Your task to perform on an android device: Open eBay Image 0: 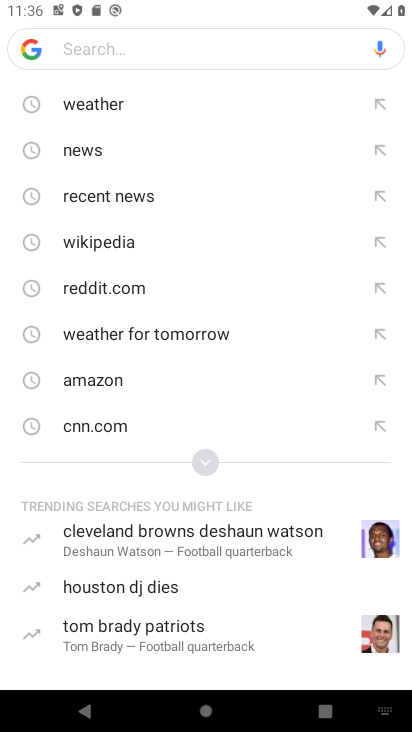
Step 0: press back button
Your task to perform on an android device: Open eBay Image 1: 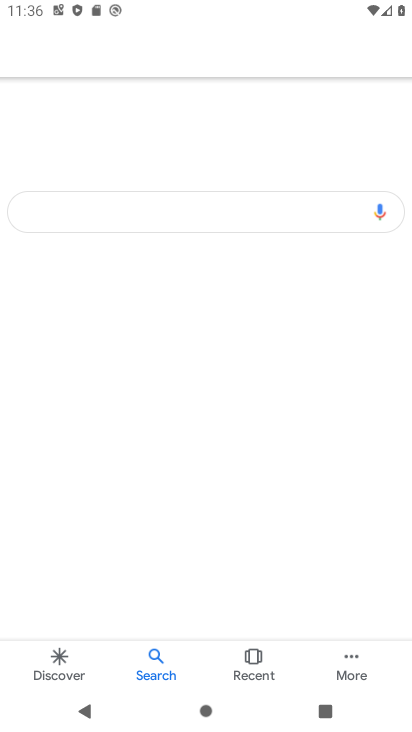
Step 1: press back button
Your task to perform on an android device: Open eBay Image 2: 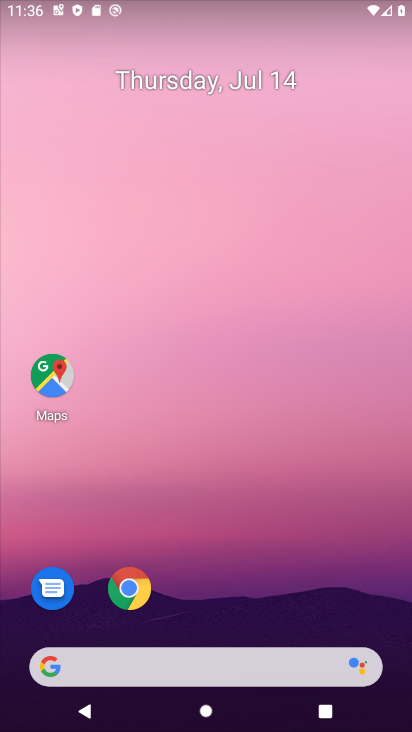
Step 2: click (123, 590)
Your task to perform on an android device: Open eBay Image 3: 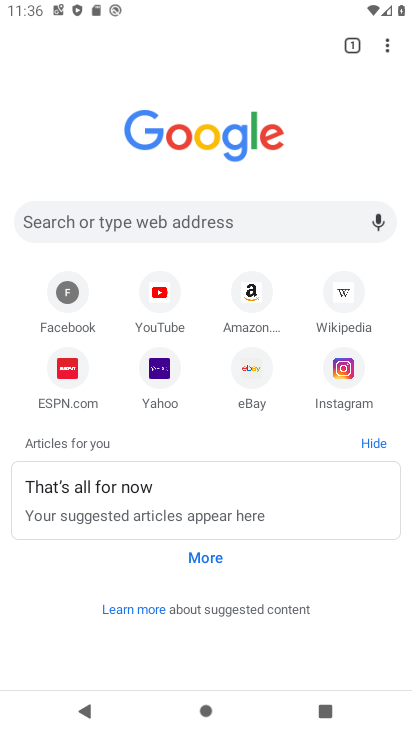
Step 3: click (255, 362)
Your task to perform on an android device: Open eBay Image 4: 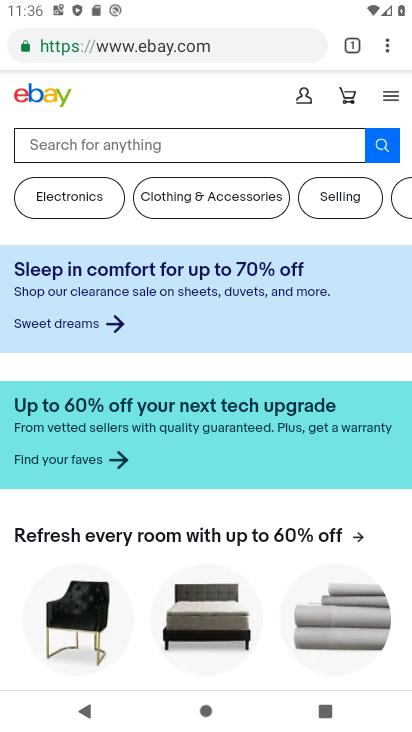
Step 4: task complete